Your task to perform on an android device: choose inbox layout in the gmail app Image 0: 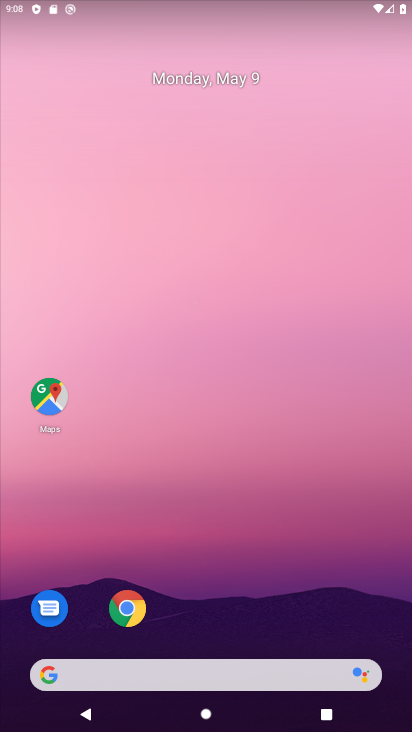
Step 0: drag from (295, 586) to (254, 164)
Your task to perform on an android device: choose inbox layout in the gmail app Image 1: 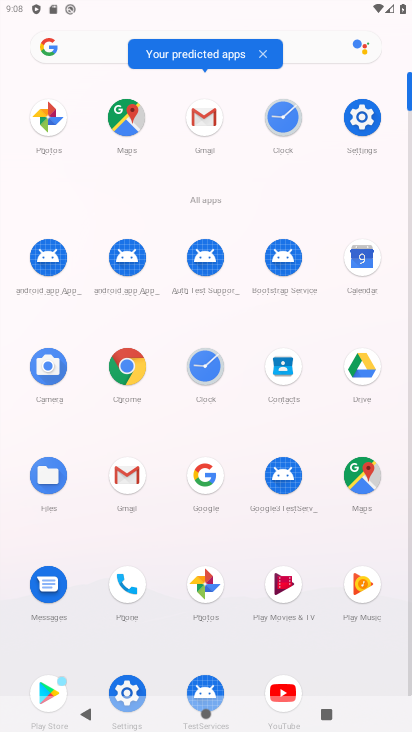
Step 1: click (120, 480)
Your task to perform on an android device: choose inbox layout in the gmail app Image 2: 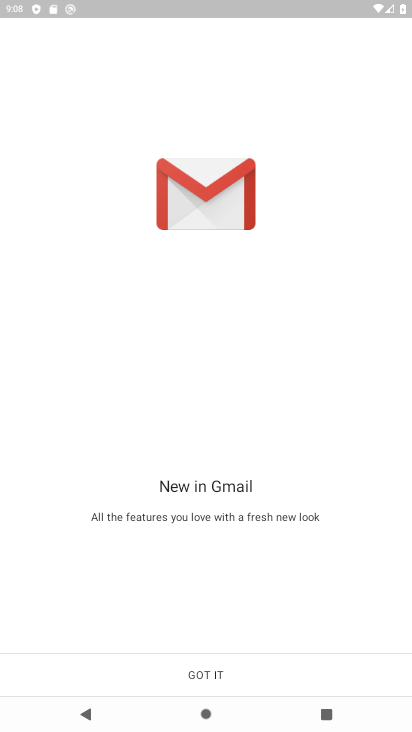
Step 2: click (257, 670)
Your task to perform on an android device: choose inbox layout in the gmail app Image 3: 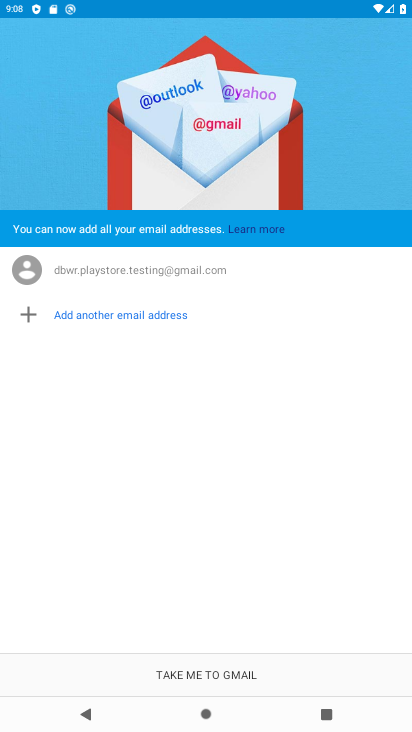
Step 3: click (263, 666)
Your task to perform on an android device: choose inbox layout in the gmail app Image 4: 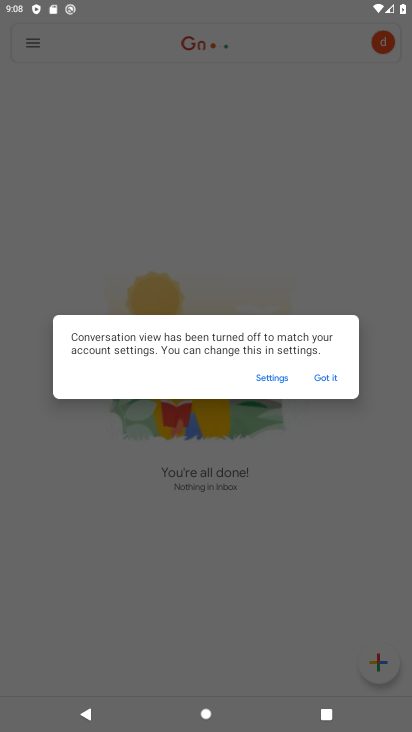
Step 4: click (323, 375)
Your task to perform on an android device: choose inbox layout in the gmail app Image 5: 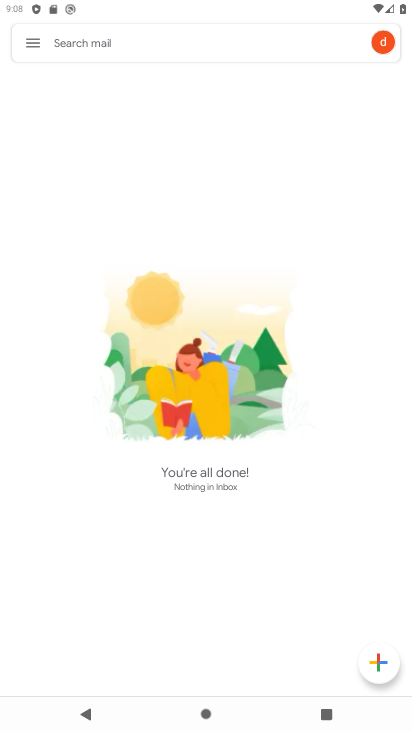
Step 5: click (39, 35)
Your task to perform on an android device: choose inbox layout in the gmail app Image 6: 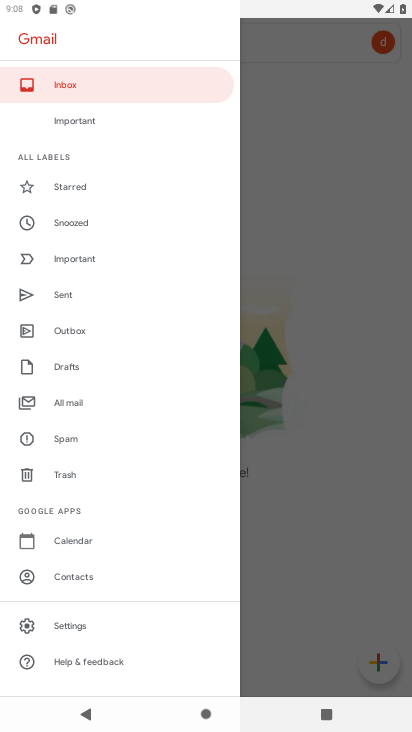
Step 6: drag from (106, 640) to (103, 254)
Your task to perform on an android device: choose inbox layout in the gmail app Image 7: 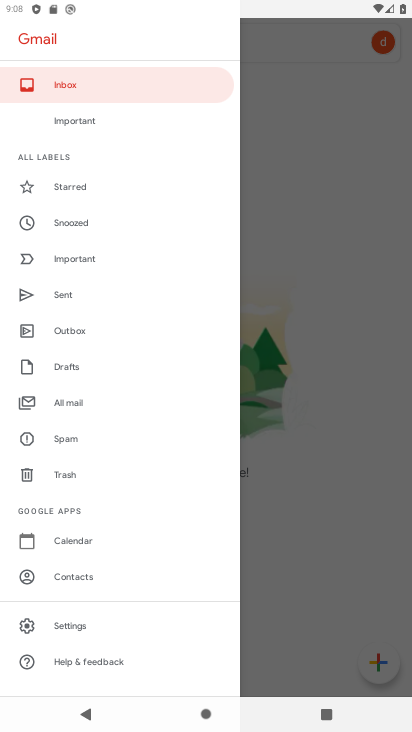
Step 7: click (80, 621)
Your task to perform on an android device: choose inbox layout in the gmail app Image 8: 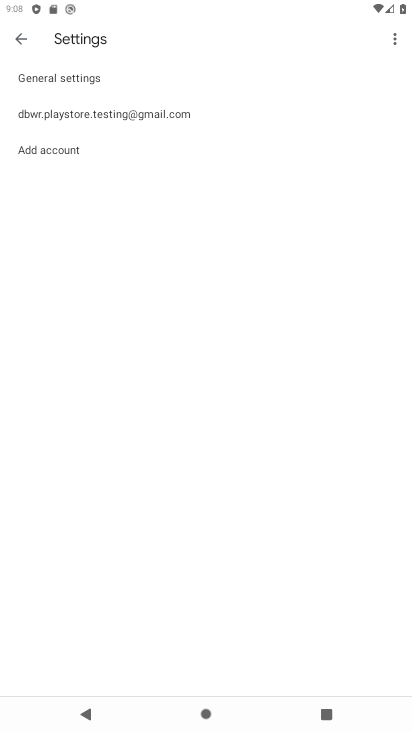
Step 8: click (122, 121)
Your task to perform on an android device: choose inbox layout in the gmail app Image 9: 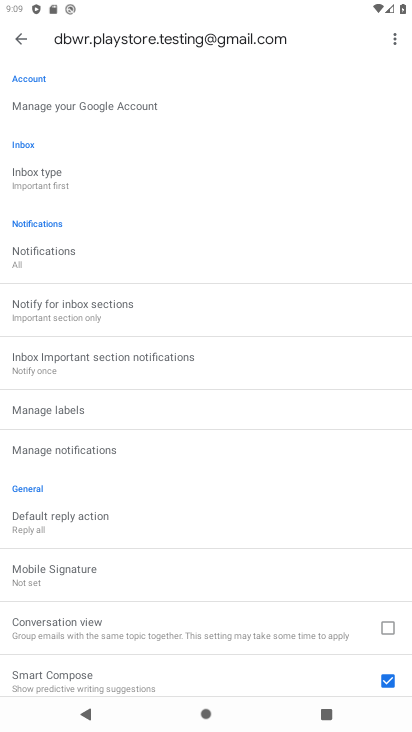
Step 9: click (44, 189)
Your task to perform on an android device: choose inbox layout in the gmail app Image 10: 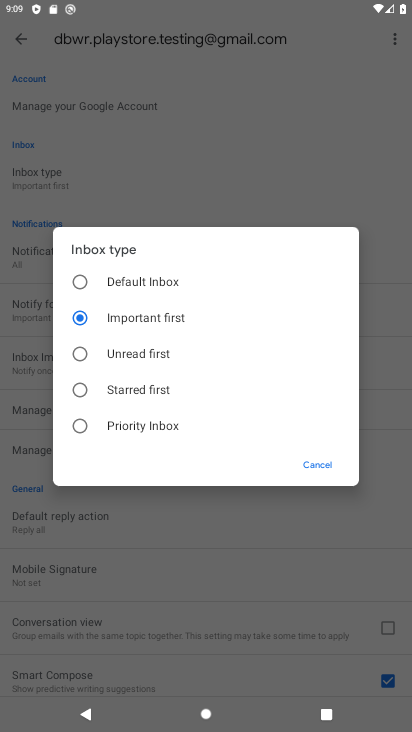
Step 10: task complete